Your task to perform on an android device: Open Chrome and go to the settings page Image 0: 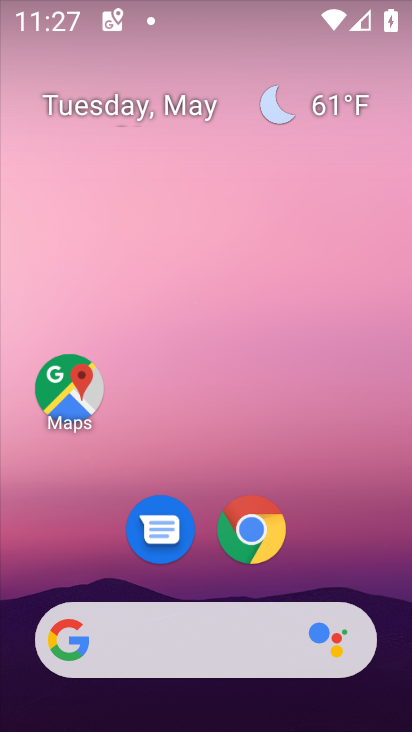
Step 0: click (258, 541)
Your task to perform on an android device: Open Chrome and go to the settings page Image 1: 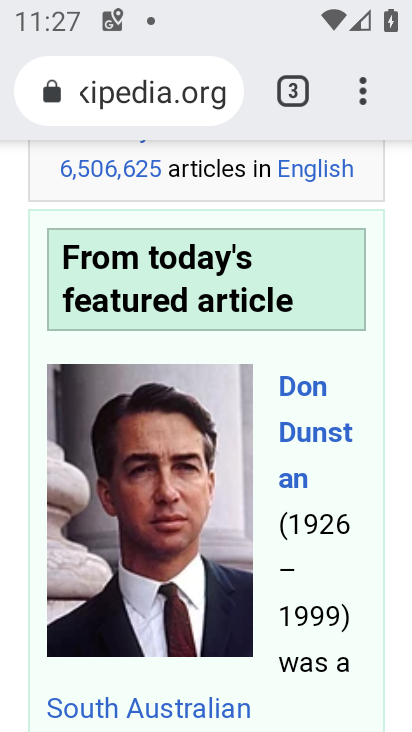
Step 1: click (362, 98)
Your task to perform on an android device: Open Chrome and go to the settings page Image 2: 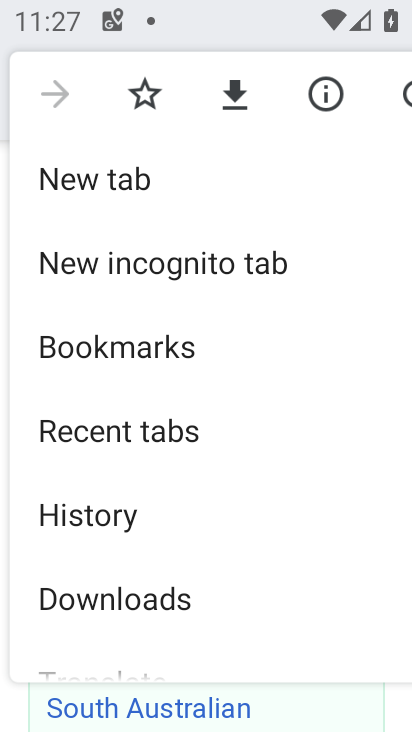
Step 2: drag from (235, 580) to (157, 62)
Your task to perform on an android device: Open Chrome and go to the settings page Image 3: 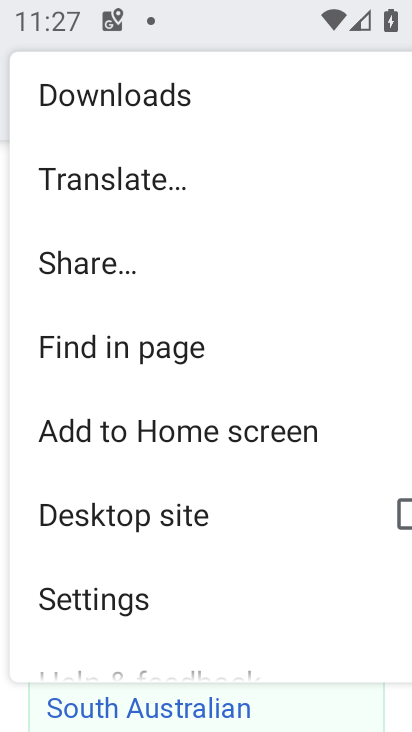
Step 3: click (80, 595)
Your task to perform on an android device: Open Chrome and go to the settings page Image 4: 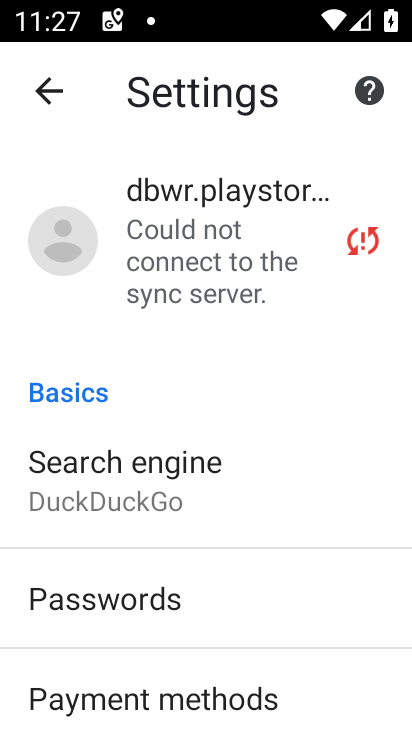
Step 4: task complete